Your task to perform on an android device: Open Google Chrome Image 0: 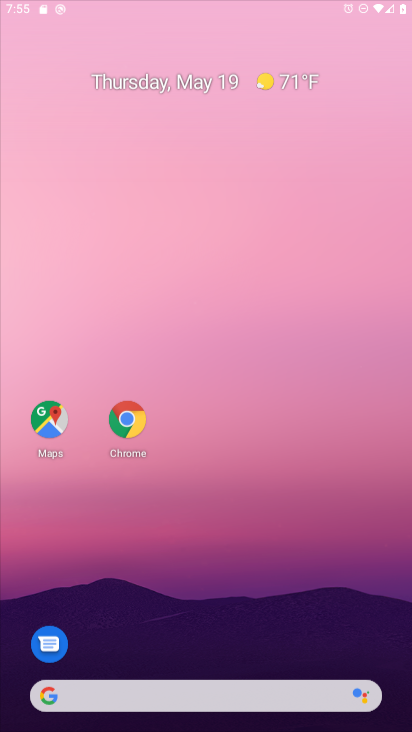
Step 0: click (203, 281)
Your task to perform on an android device: Open Google Chrome Image 1: 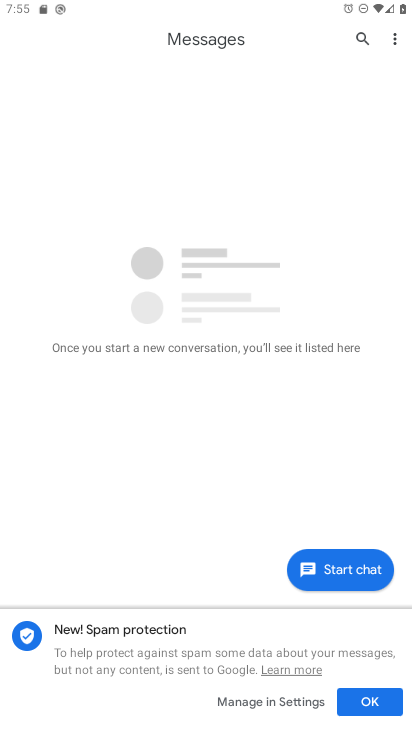
Step 1: press home button
Your task to perform on an android device: Open Google Chrome Image 2: 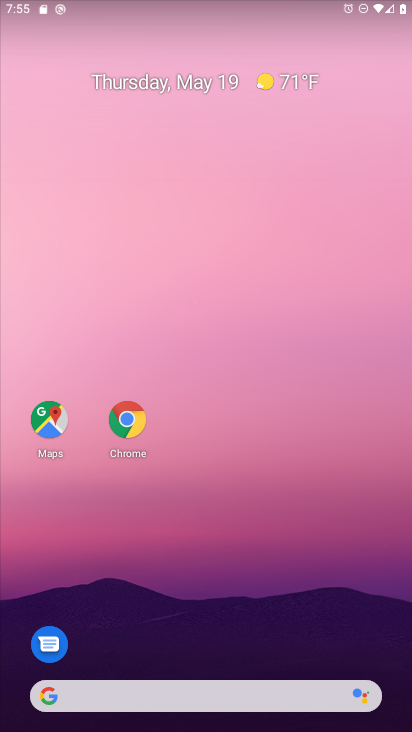
Step 2: click (134, 410)
Your task to perform on an android device: Open Google Chrome Image 3: 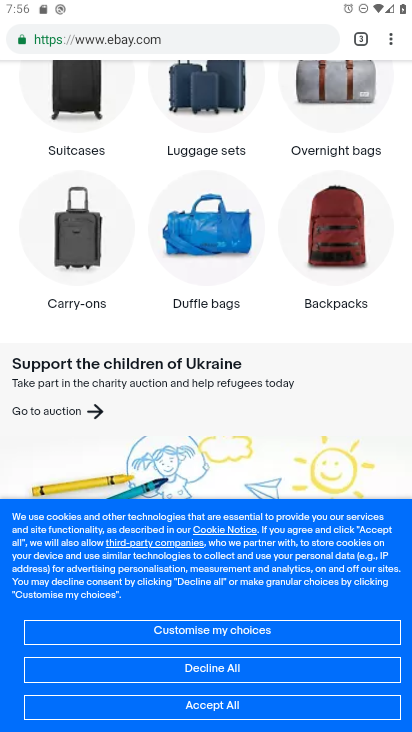
Step 3: task complete